Your task to perform on an android device: delete the emails in spam in the gmail app Image 0: 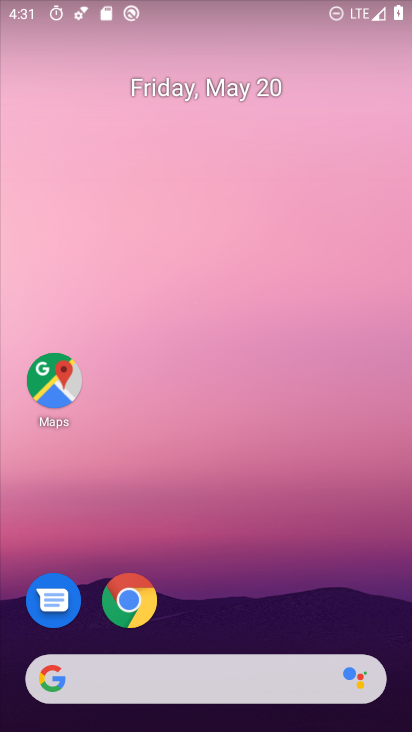
Step 0: drag from (218, 602) to (368, 1)
Your task to perform on an android device: delete the emails in spam in the gmail app Image 1: 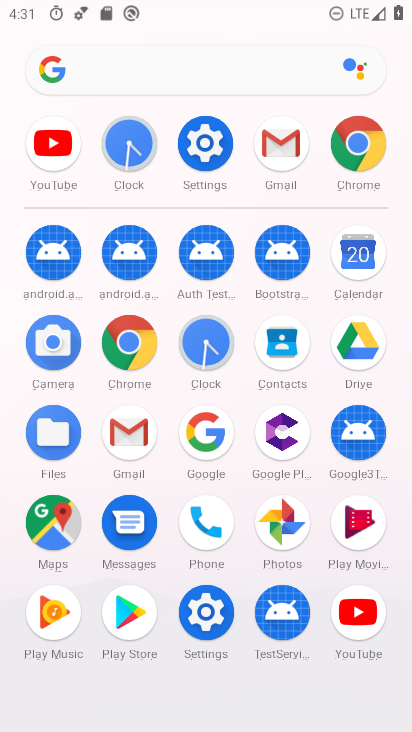
Step 1: click (276, 136)
Your task to perform on an android device: delete the emails in spam in the gmail app Image 2: 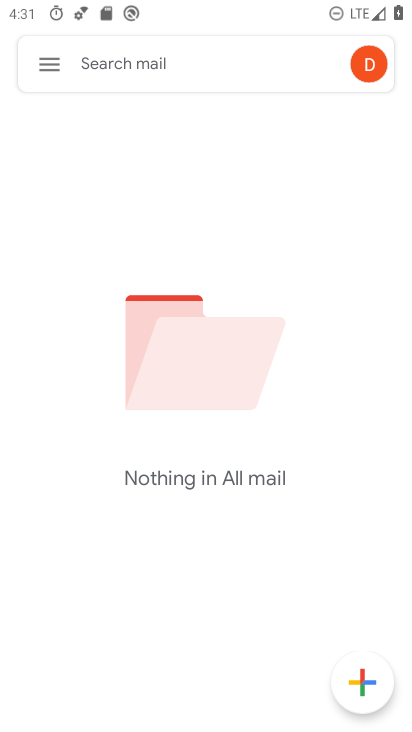
Step 2: click (47, 65)
Your task to perform on an android device: delete the emails in spam in the gmail app Image 3: 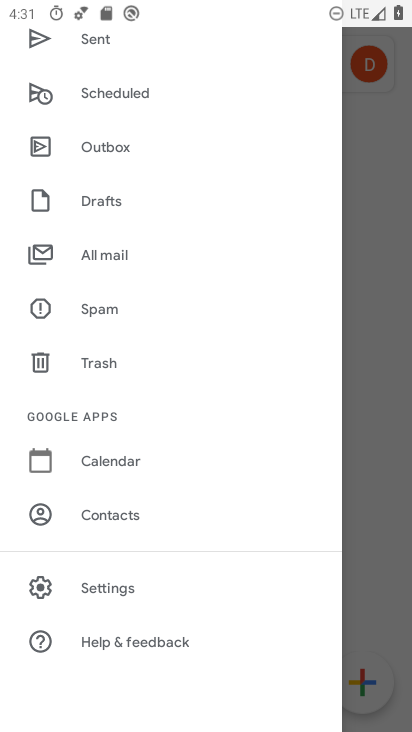
Step 3: click (104, 306)
Your task to perform on an android device: delete the emails in spam in the gmail app Image 4: 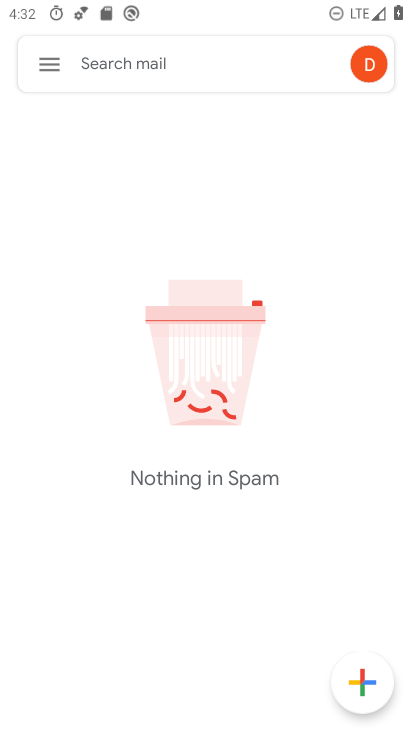
Step 4: task complete